Your task to perform on an android device: check storage Image 0: 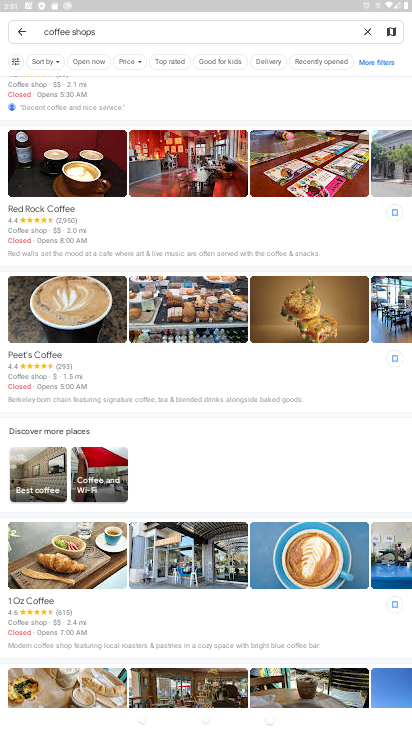
Step 0: press home button
Your task to perform on an android device: check storage Image 1: 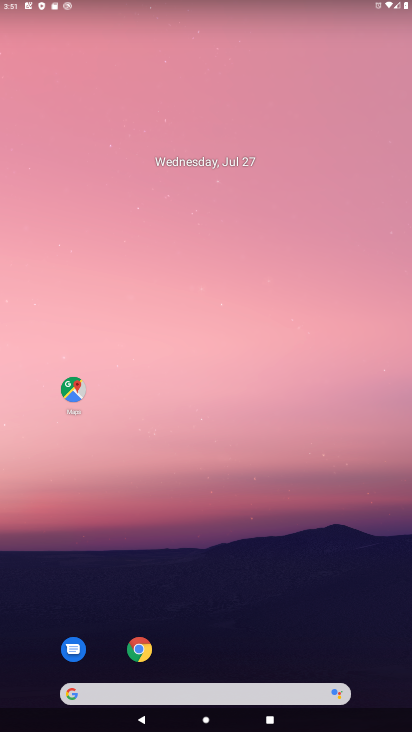
Step 1: drag from (381, 665) to (352, 137)
Your task to perform on an android device: check storage Image 2: 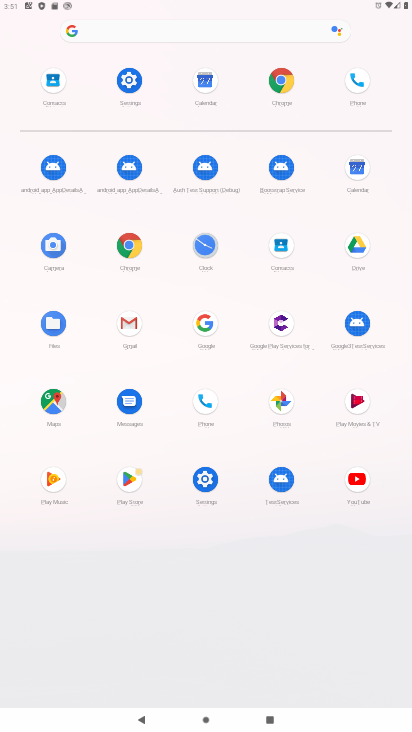
Step 2: click (205, 481)
Your task to perform on an android device: check storage Image 3: 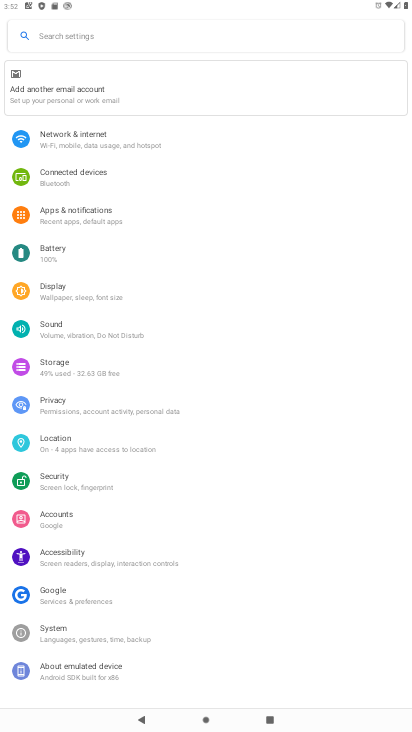
Step 3: click (48, 359)
Your task to perform on an android device: check storage Image 4: 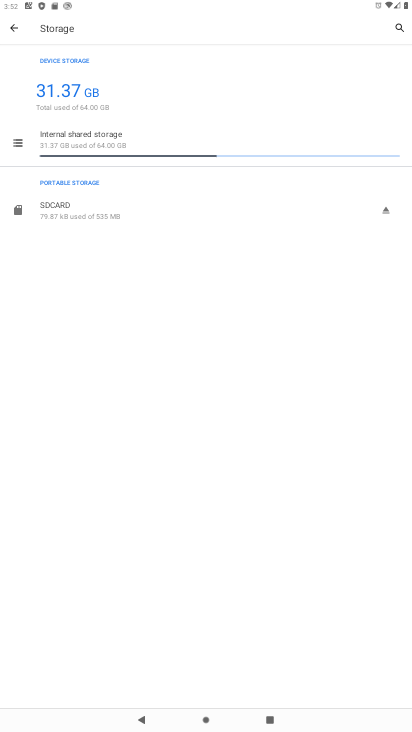
Step 4: task complete